Your task to perform on an android device: Turn off the flashlight Image 0: 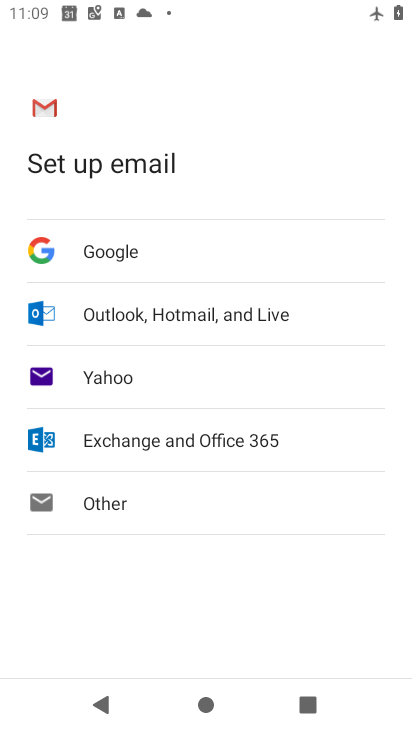
Step 0: press home button
Your task to perform on an android device: Turn off the flashlight Image 1: 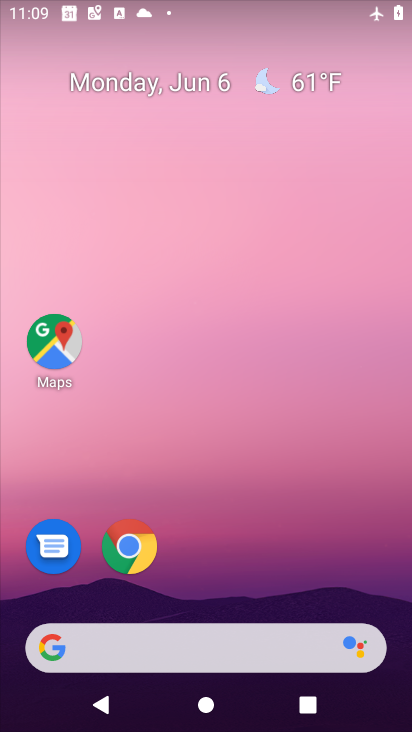
Step 1: drag from (262, 15) to (271, 538)
Your task to perform on an android device: Turn off the flashlight Image 2: 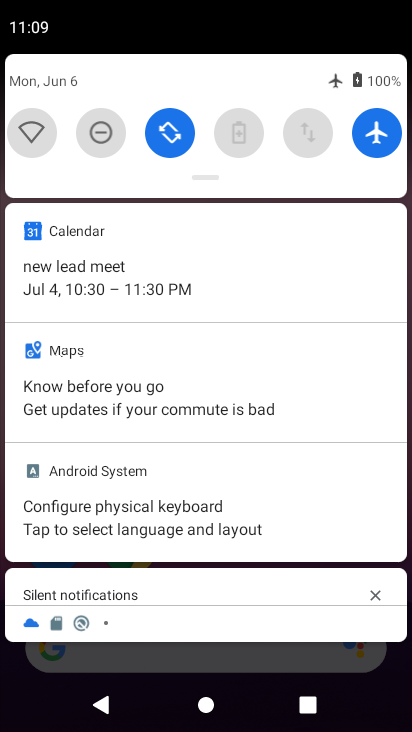
Step 2: drag from (203, 177) to (221, 512)
Your task to perform on an android device: Turn off the flashlight Image 3: 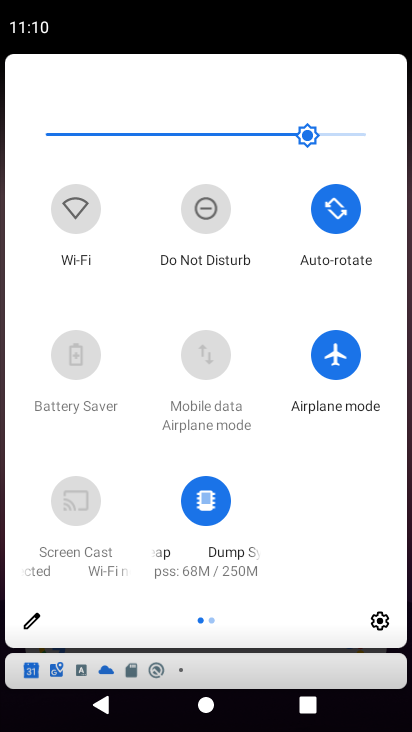
Step 3: click (30, 619)
Your task to perform on an android device: Turn off the flashlight Image 4: 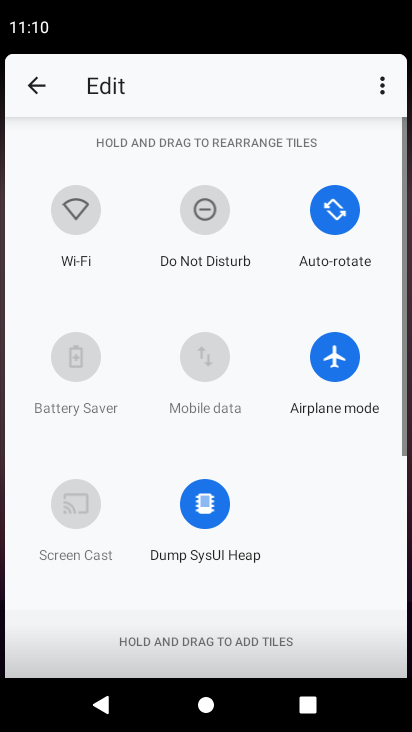
Step 4: task complete